Your task to perform on an android device: empty trash in google photos Image 0: 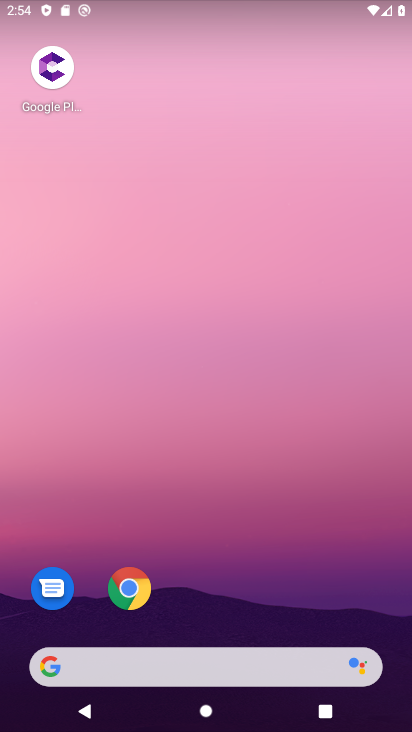
Step 0: drag from (269, 628) to (289, 209)
Your task to perform on an android device: empty trash in google photos Image 1: 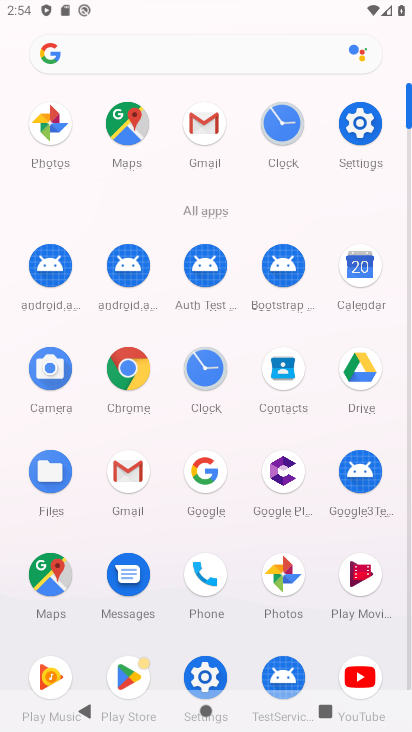
Step 1: click (282, 578)
Your task to perform on an android device: empty trash in google photos Image 2: 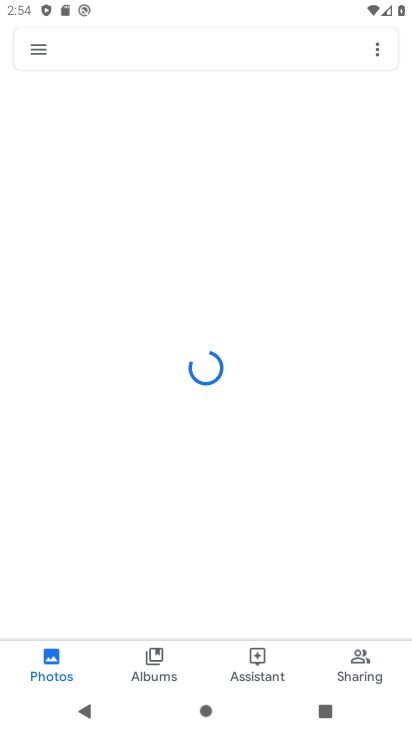
Step 2: click (35, 41)
Your task to perform on an android device: empty trash in google photos Image 3: 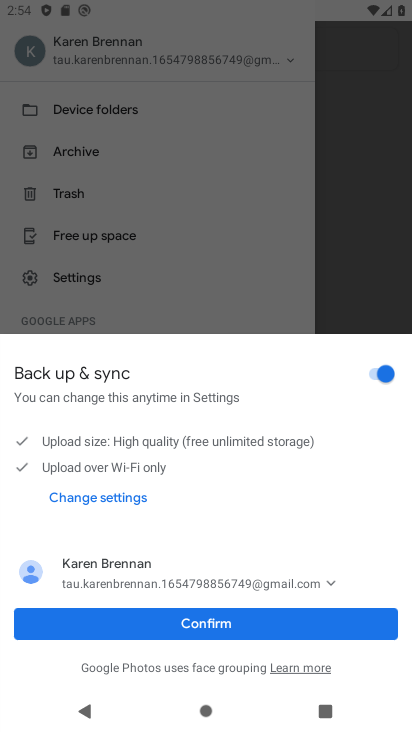
Step 3: click (169, 616)
Your task to perform on an android device: empty trash in google photos Image 4: 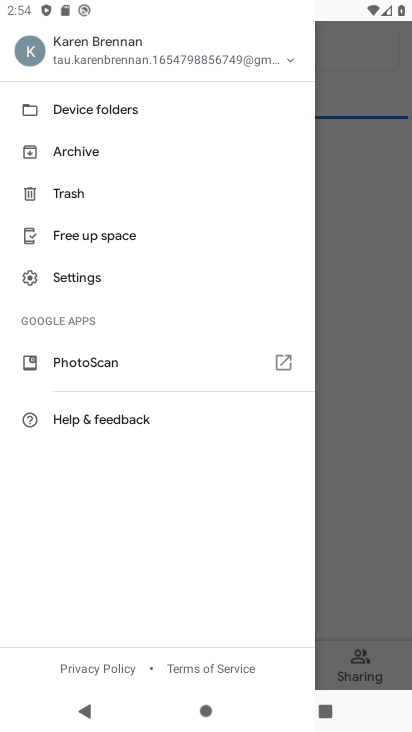
Step 4: click (36, 188)
Your task to perform on an android device: empty trash in google photos Image 5: 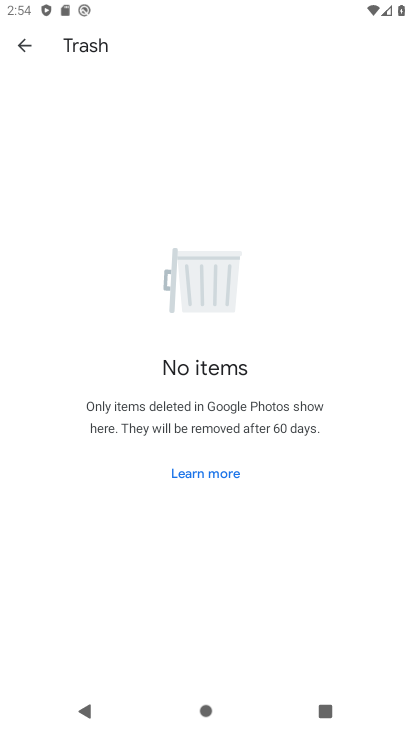
Step 5: task complete